Your task to perform on an android device: uninstall "Viber Messenger" Image 0: 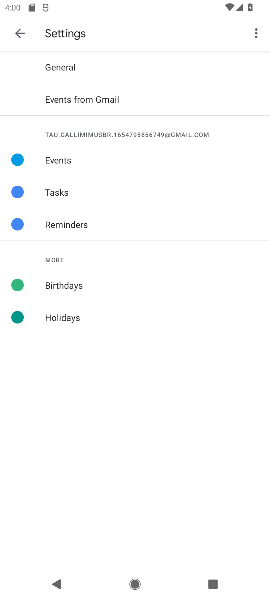
Step 0: press home button
Your task to perform on an android device: uninstall "Viber Messenger" Image 1: 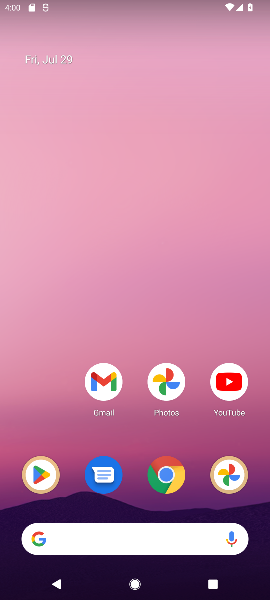
Step 1: click (35, 469)
Your task to perform on an android device: uninstall "Viber Messenger" Image 2: 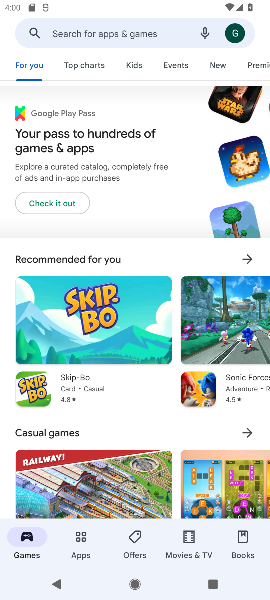
Step 2: click (76, 32)
Your task to perform on an android device: uninstall "Viber Messenger" Image 3: 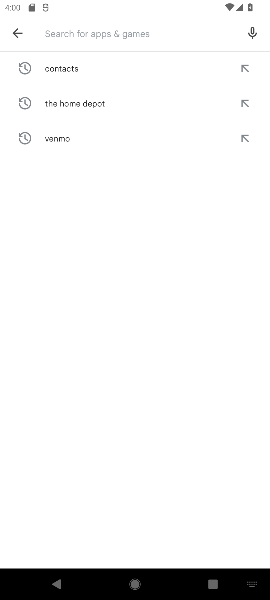
Step 3: type "Viber Messenger"
Your task to perform on an android device: uninstall "Viber Messenger" Image 4: 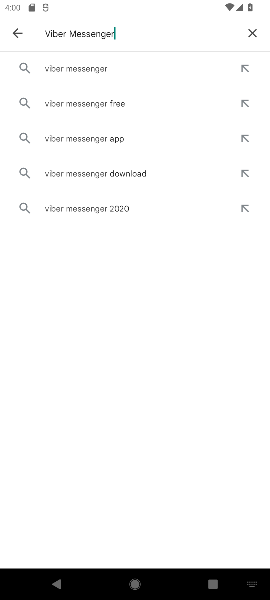
Step 4: click (70, 67)
Your task to perform on an android device: uninstall "Viber Messenger" Image 5: 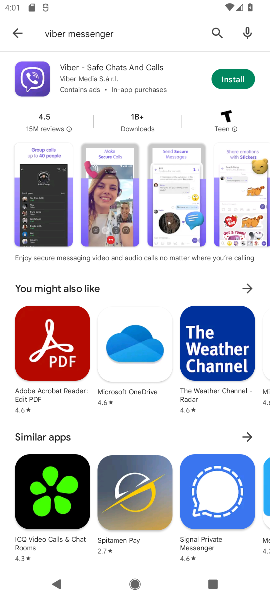
Step 5: task complete